Your task to perform on an android device: uninstall "Indeed Job Search" Image 0: 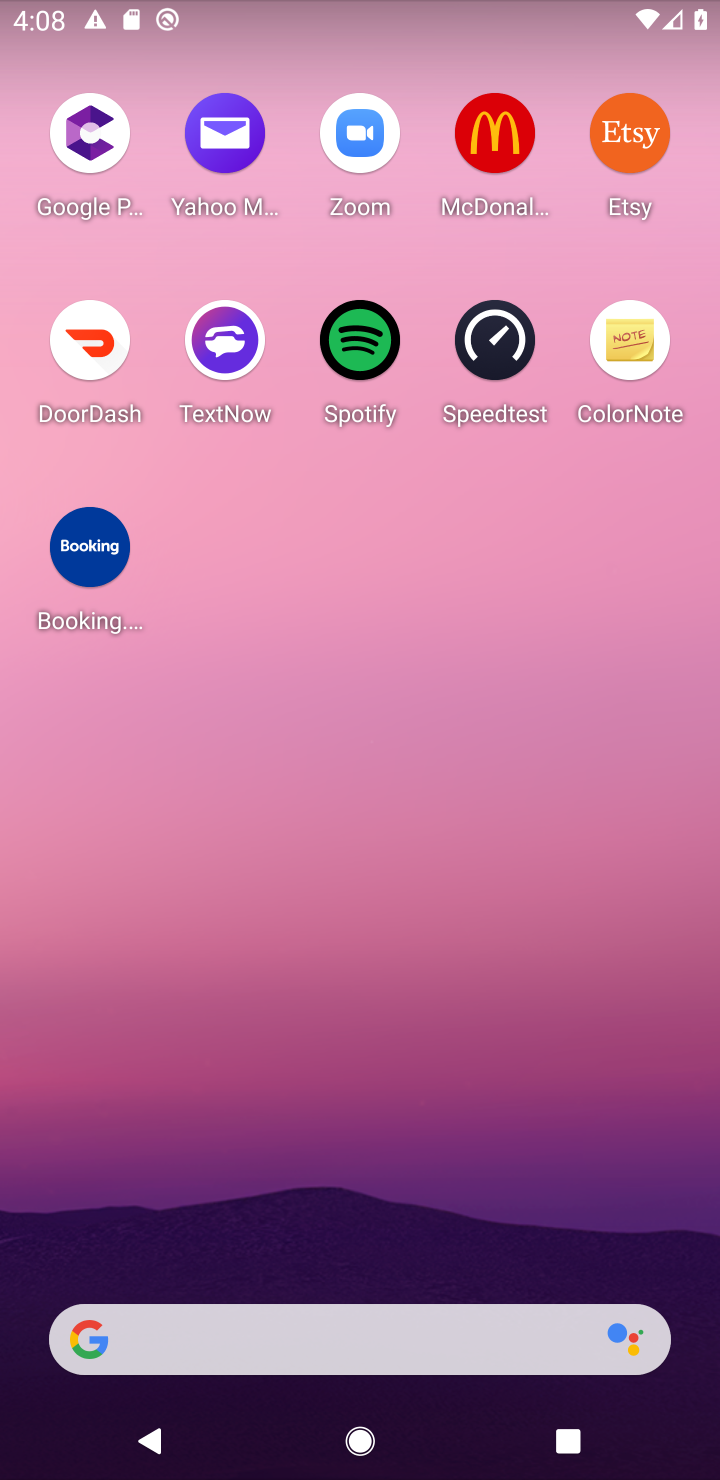
Step 0: drag from (403, 447) to (324, 127)
Your task to perform on an android device: uninstall "Indeed Job Search" Image 1: 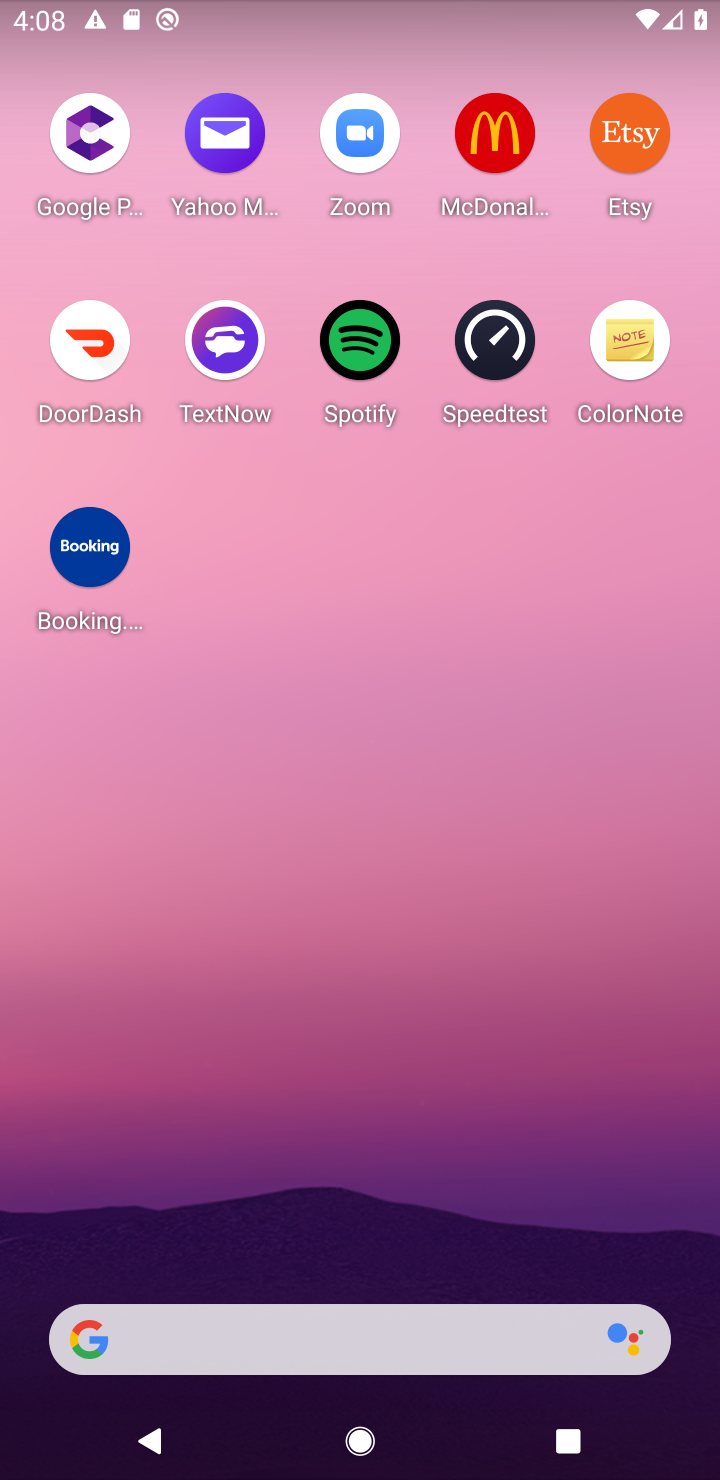
Step 1: drag from (306, 643) to (292, 82)
Your task to perform on an android device: uninstall "Indeed Job Search" Image 2: 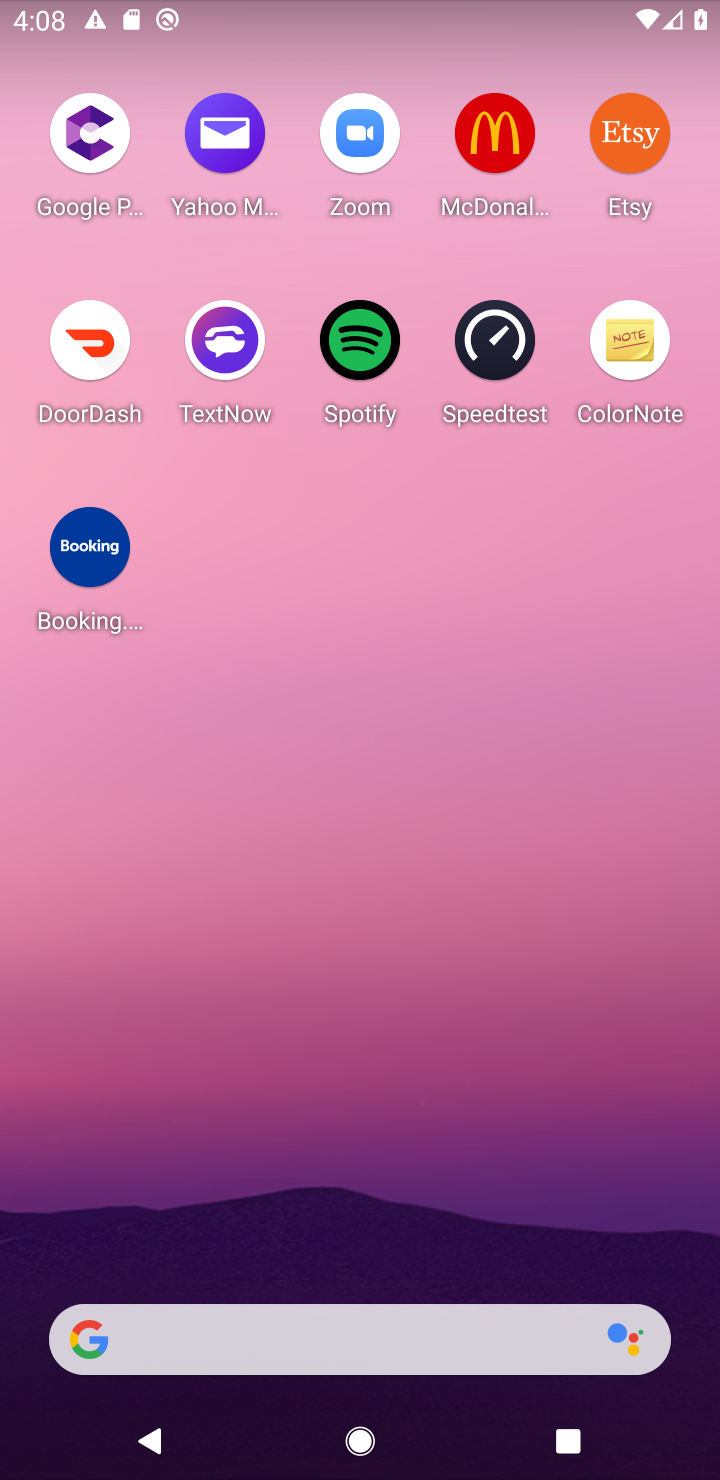
Step 2: drag from (313, 743) to (285, 258)
Your task to perform on an android device: uninstall "Indeed Job Search" Image 3: 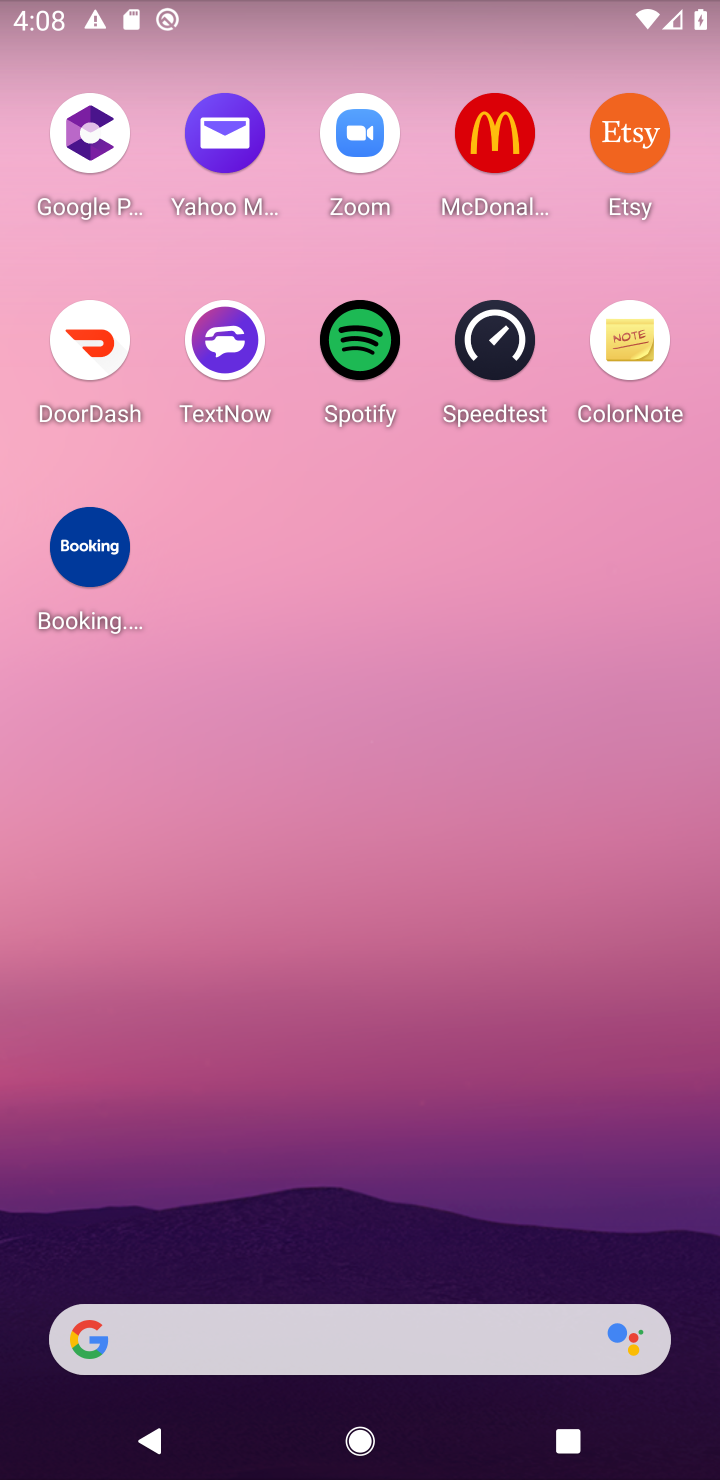
Step 3: drag from (307, 1315) to (201, 332)
Your task to perform on an android device: uninstall "Indeed Job Search" Image 4: 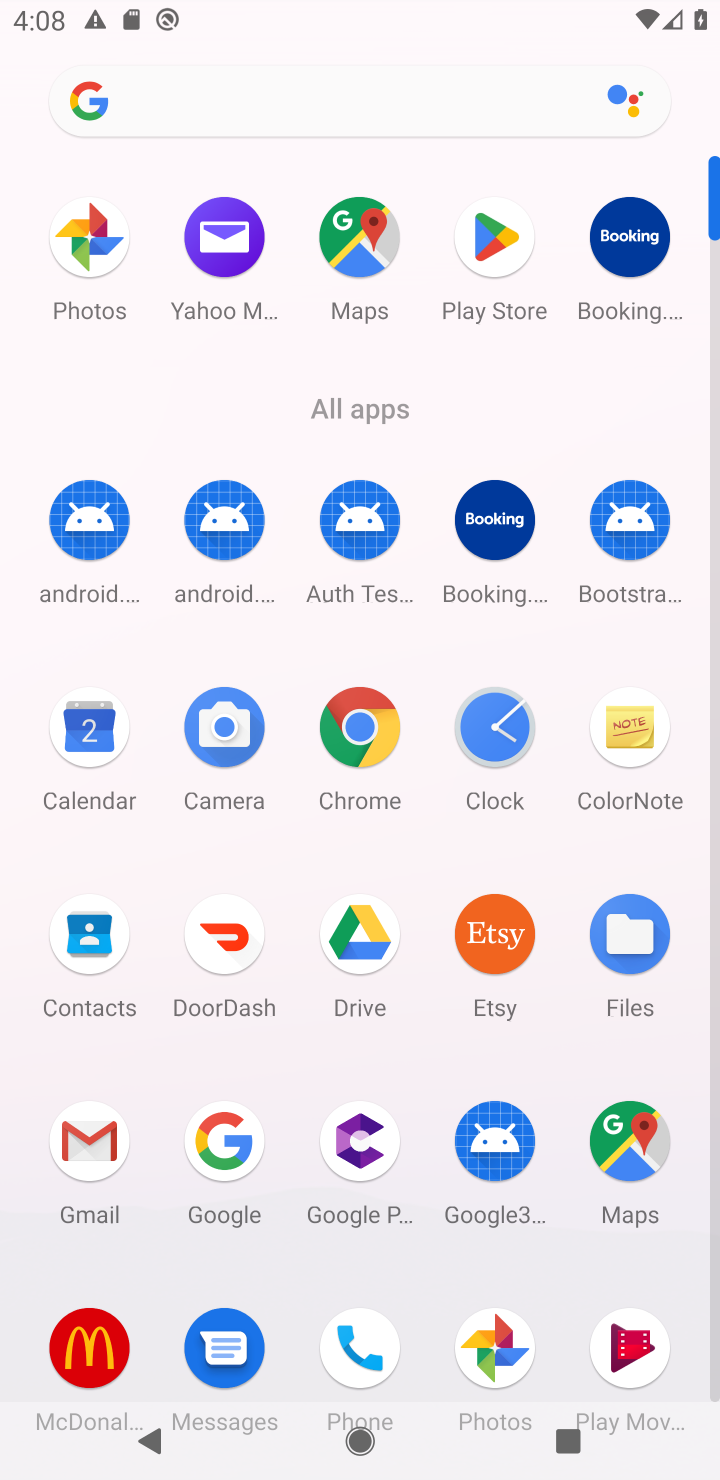
Step 4: click (484, 226)
Your task to perform on an android device: uninstall "Indeed Job Search" Image 5: 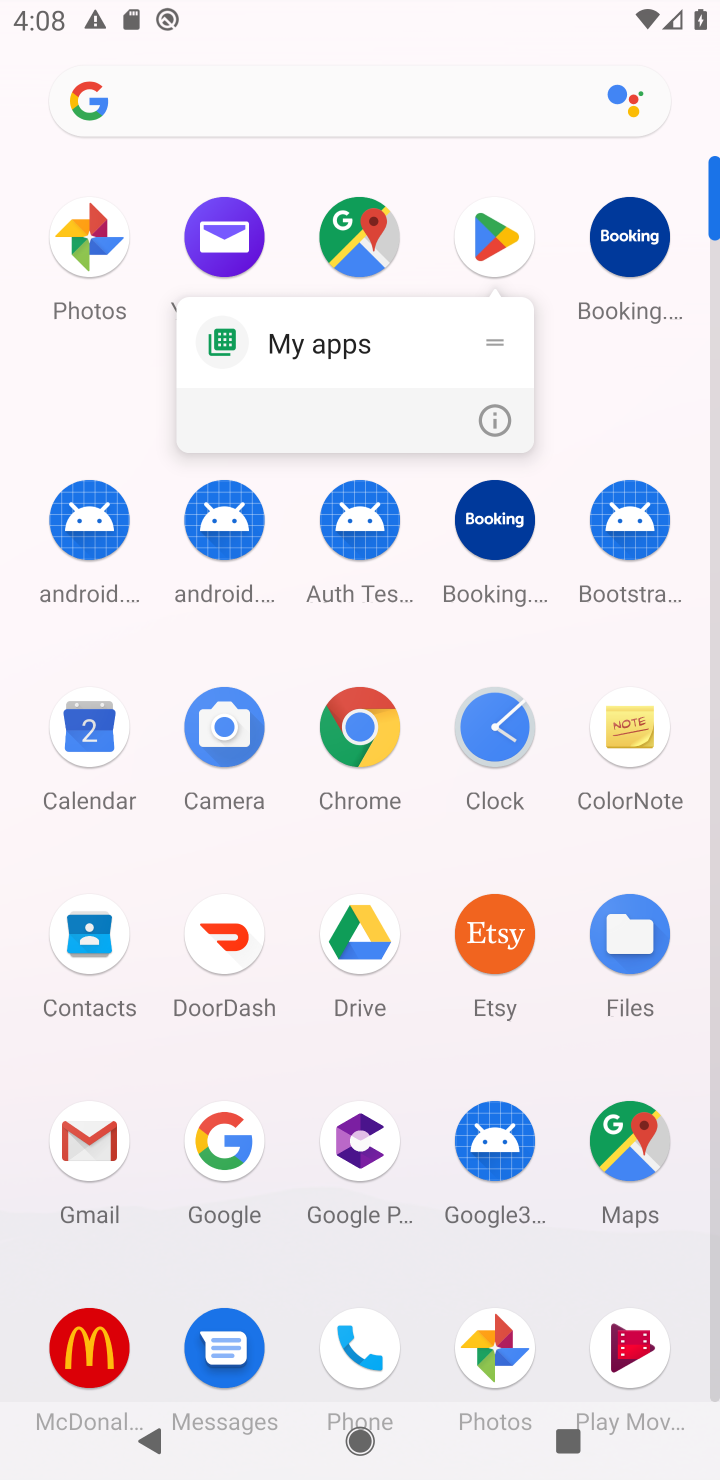
Step 5: click (483, 224)
Your task to perform on an android device: uninstall "Indeed Job Search" Image 6: 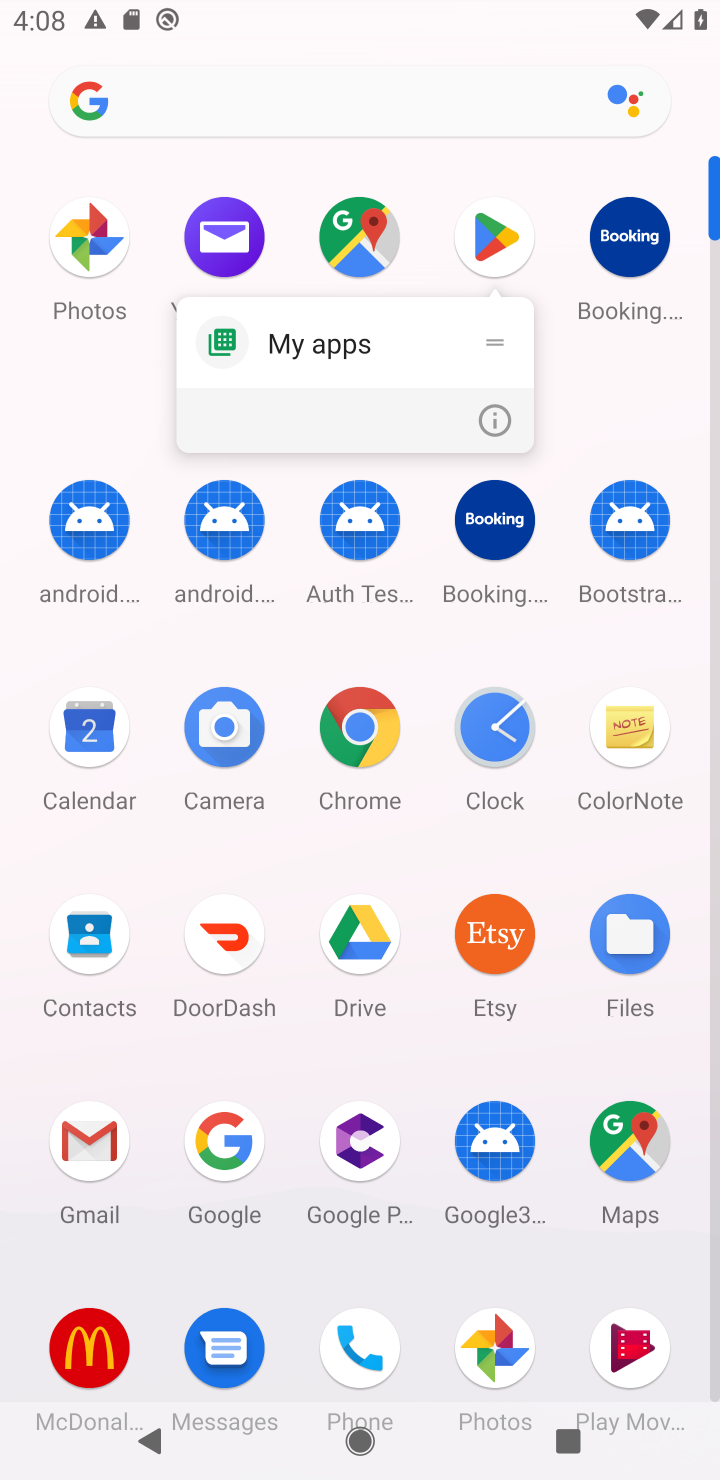
Step 6: click (483, 224)
Your task to perform on an android device: uninstall "Indeed Job Search" Image 7: 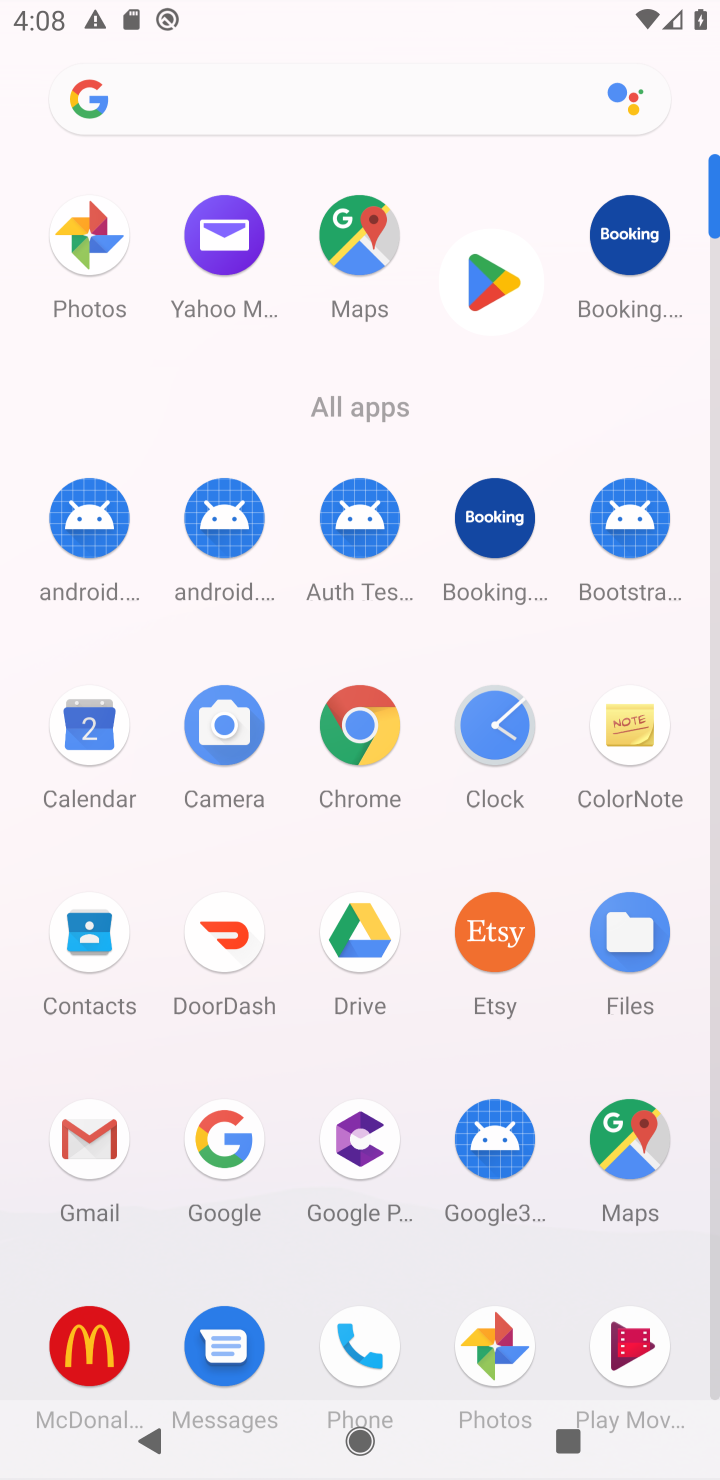
Step 7: click (495, 250)
Your task to perform on an android device: uninstall "Indeed Job Search" Image 8: 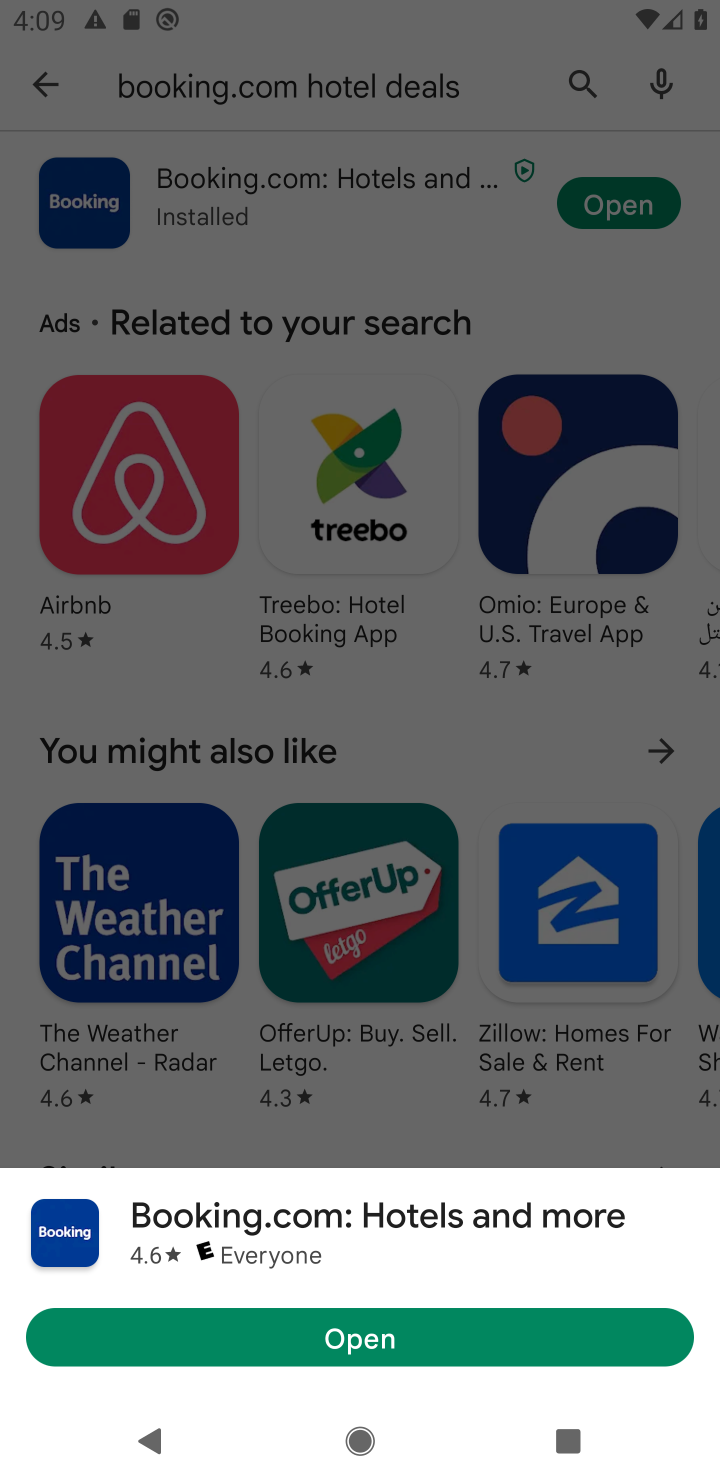
Step 8: click (580, 80)
Your task to perform on an android device: uninstall "Indeed Job Search" Image 9: 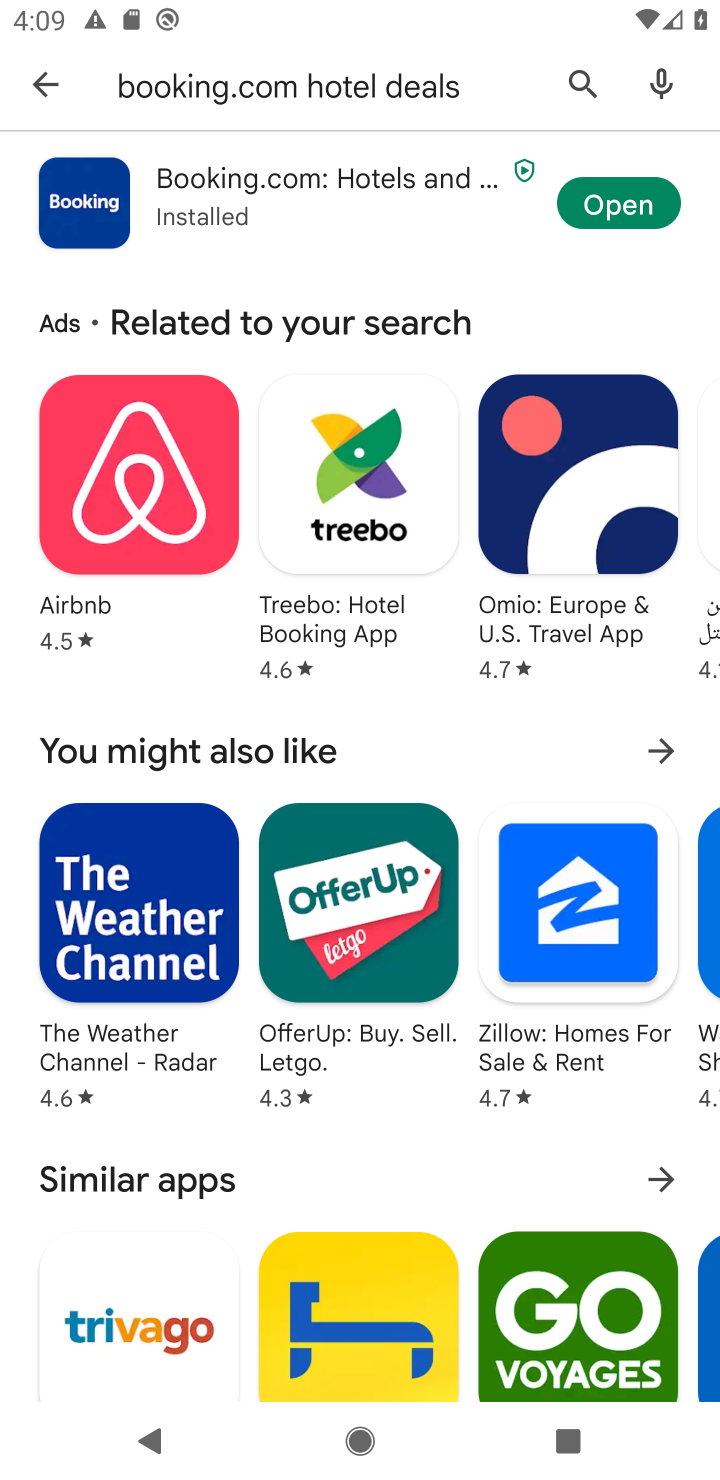
Step 9: click (579, 89)
Your task to perform on an android device: uninstall "Indeed Job Search" Image 10: 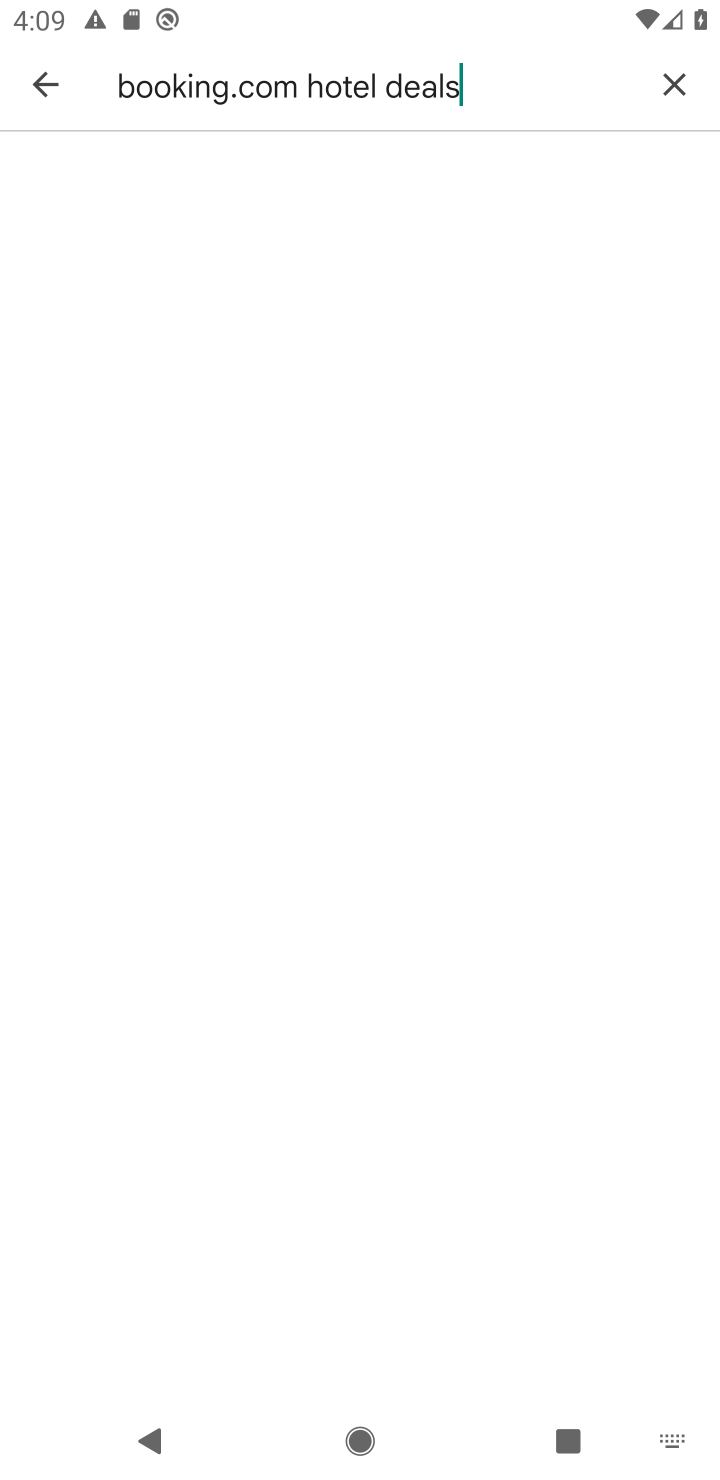
Step 10: click (567, 100)
Your task to perform on an android device: uninstall "Indeed Job Search" Image 11: 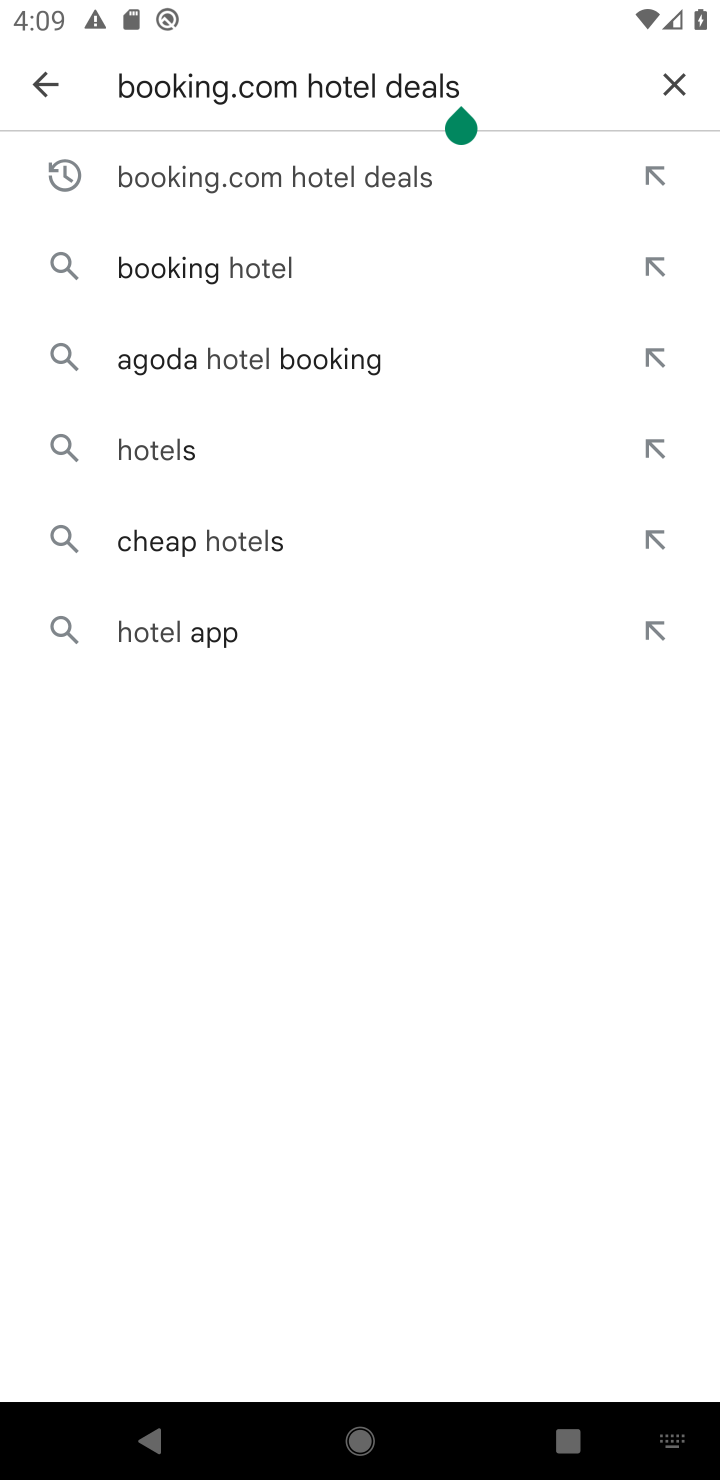
Step 11: click (666, 83)
Your task to perform on an android device: uninstall "Indeed Job Search" Image 12: 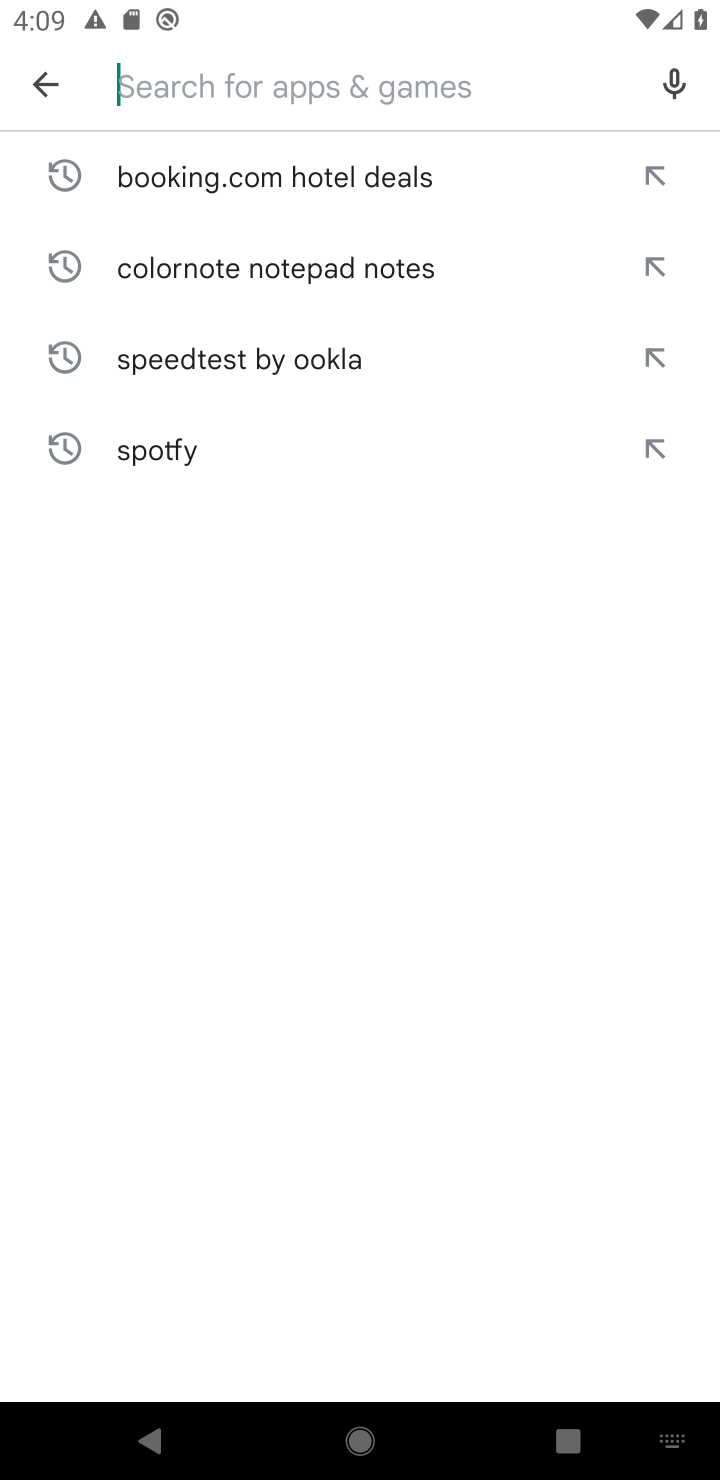
Step 12: type "indeed "
Your task to perform on an android device: uninstall "Indeed Job Search" Image 13: 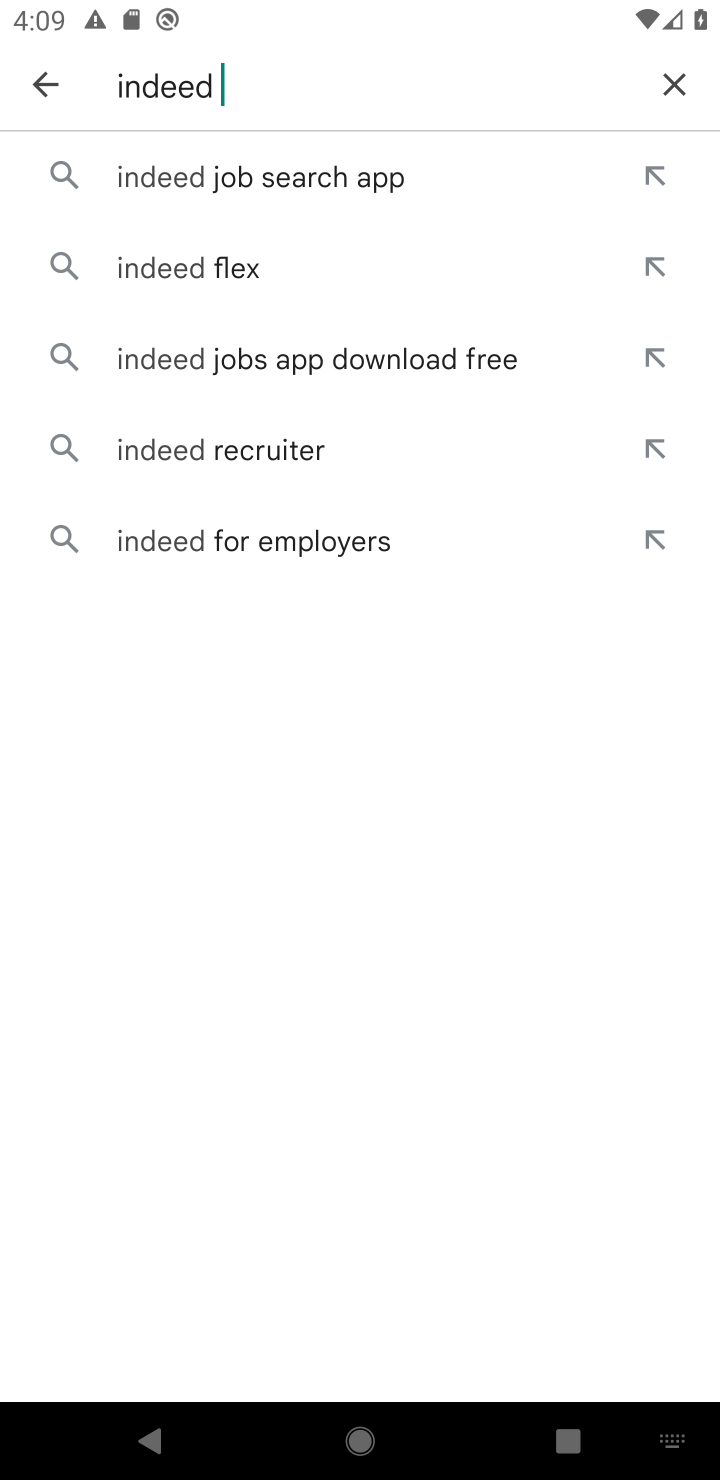
Step 13: click (302, 169)
Your task to perform on an android device: uninstall "Indeed Job Search" Image 14: 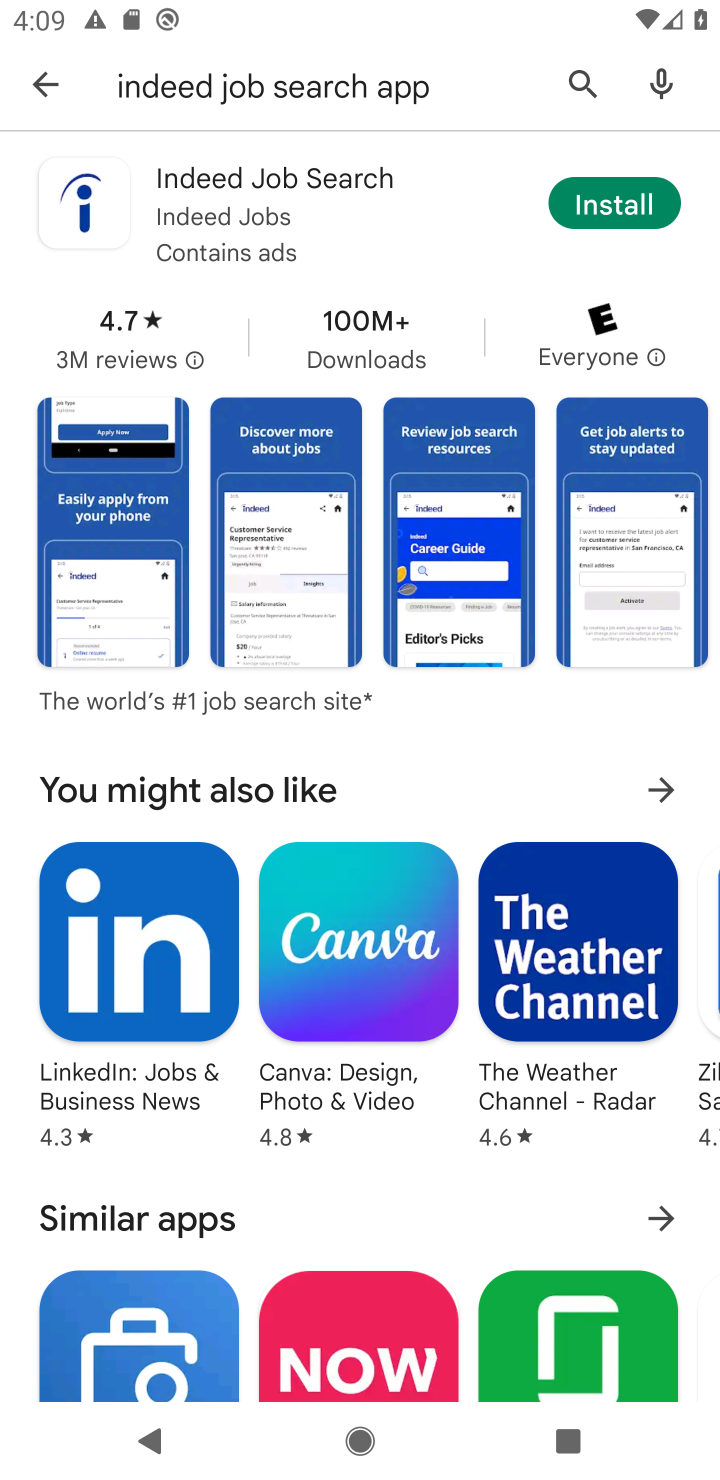
Step 14: click (608, 200)
Your task to perform on an android device: uninstall "Indeed Job Search" Image 15: 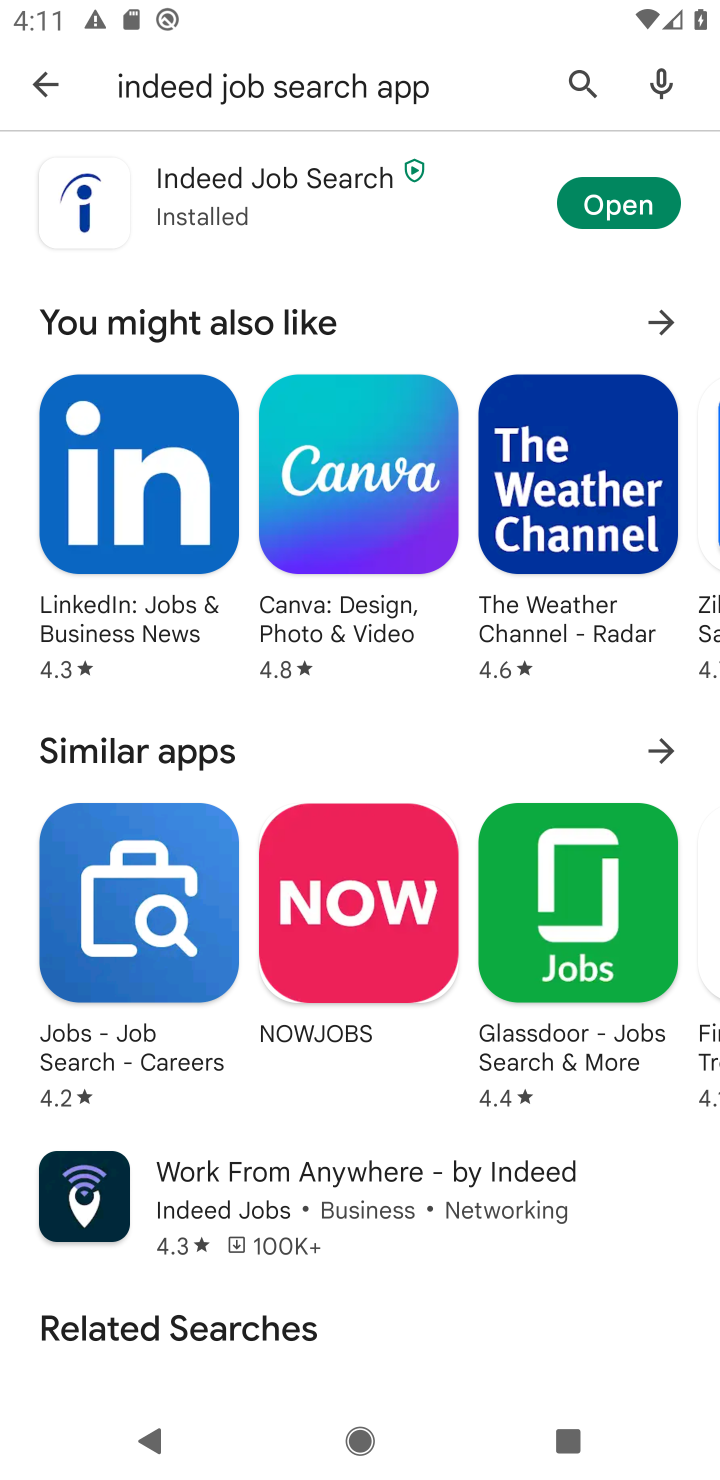
Step 15: click (611, 203)
Your task to perform on an android device: uninstall "Indeed Job Search" Image 16: 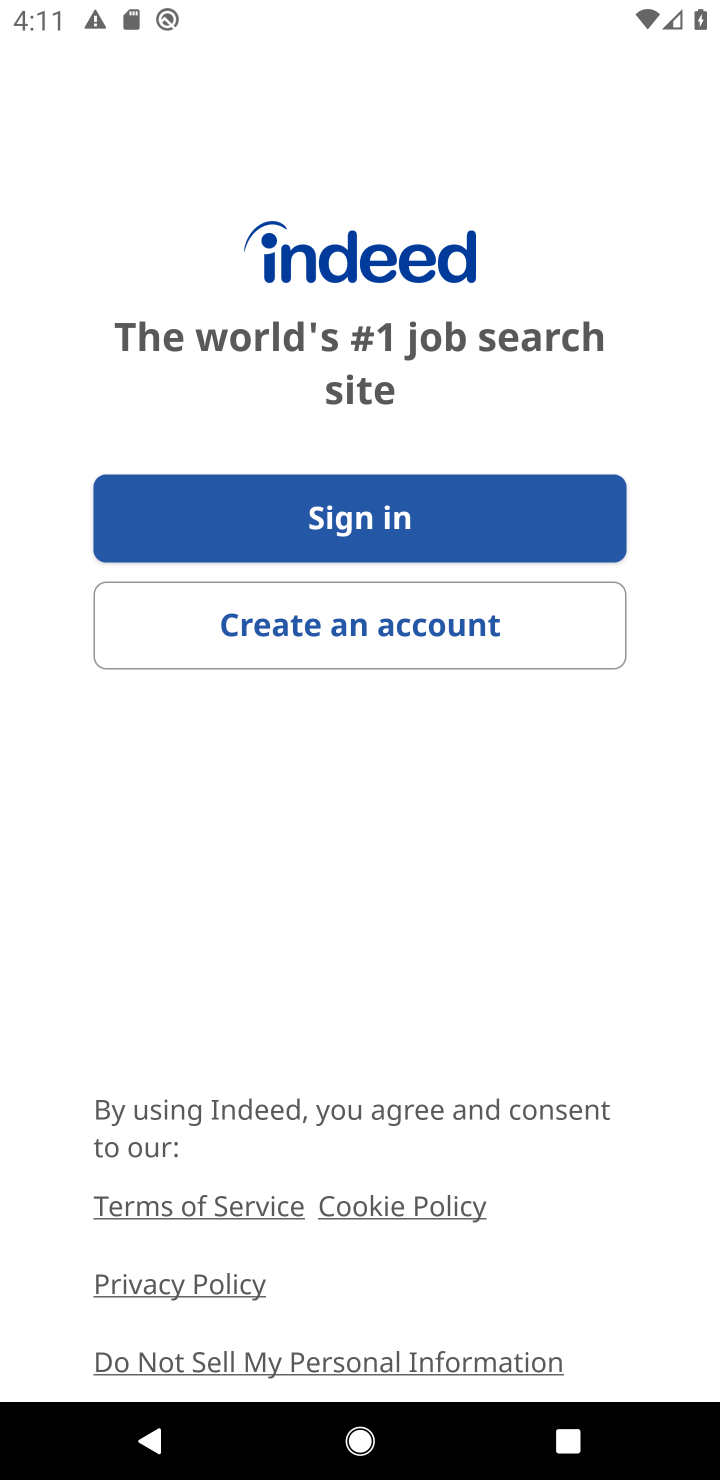
Step 16: task complete